Your task to perform on an android device: Open calendar and show me the second week of next month Image 0: 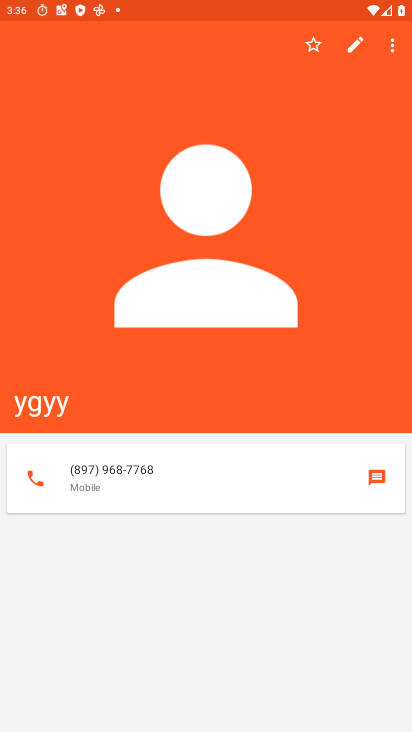
Step 0: press home button
Your task to perform on an android device: Open calendar and show me the second week of next month Image 1: 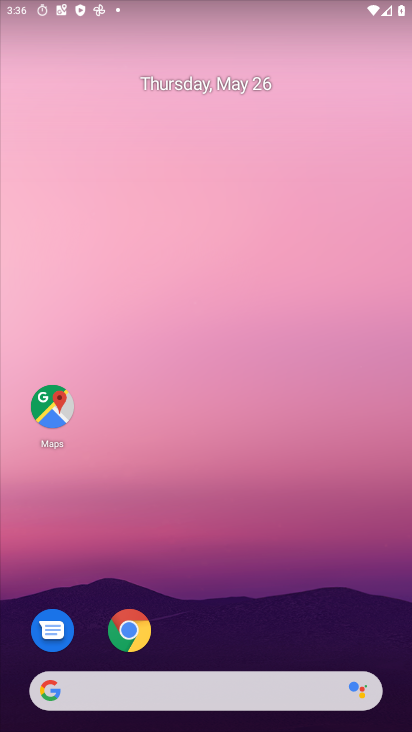
Step 1: drag from (173, 632) to (133, 31)
Your task to perform on an android device: Open calendar and show me the second week of next month Image 2: 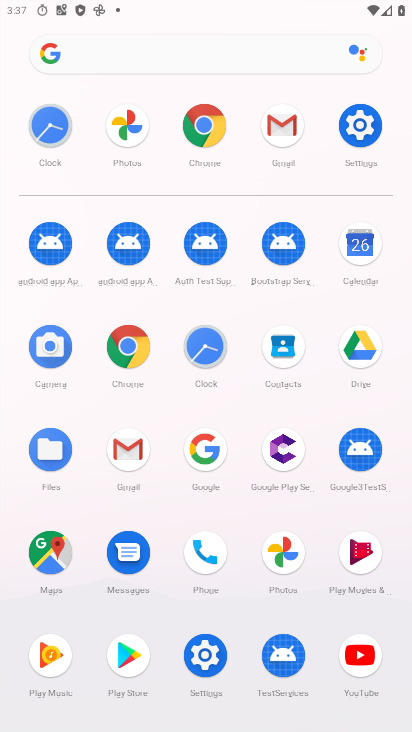
Step 2: click (373, 239)
Your task to perform on an android device: Open calendar and show me the second week of next month Image 3: 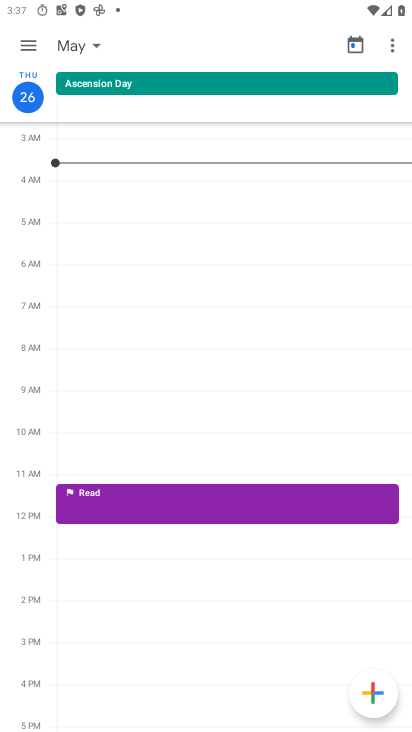
Step 3: click (26, 38)
Your task to perform on an android device: Open calendar and show me the second week of next month Image 4: 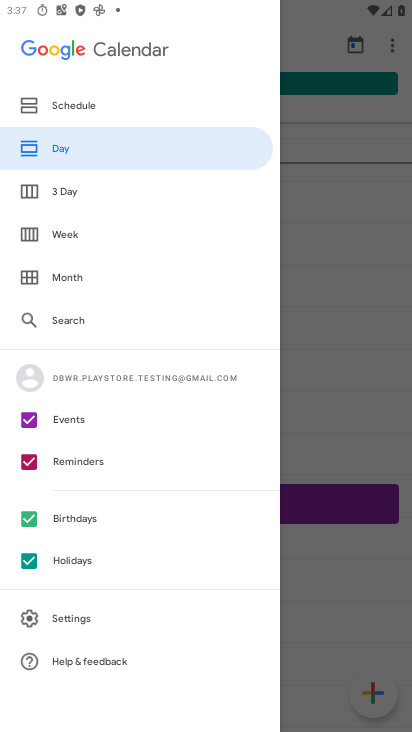
Step 4: click (75, 231)
Your task to perform on an android device: Open calendar and show me the second week of next month Image 5: 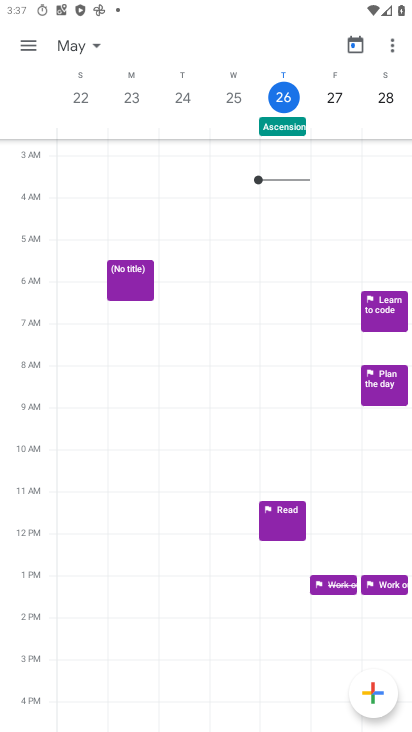
Step 5: click (88, 32)
Your task to perform on an android device: Open calendar and show me the second week of next month Image 6: 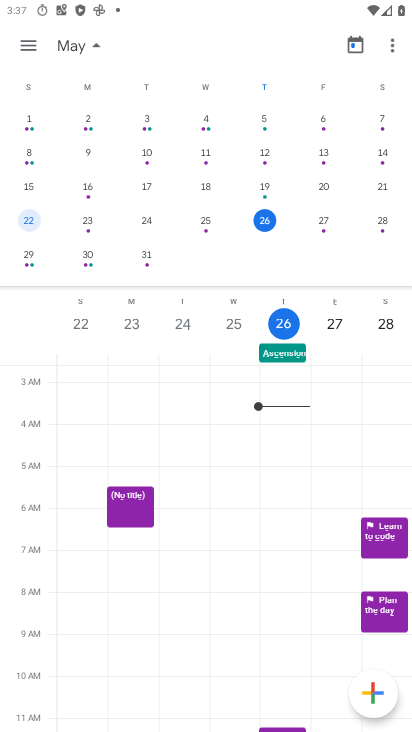
Step 6: drag from (397, 180) to (116, 192)
Your task to perform on an android device: Open calendar and show me the second week of next month Image 7: 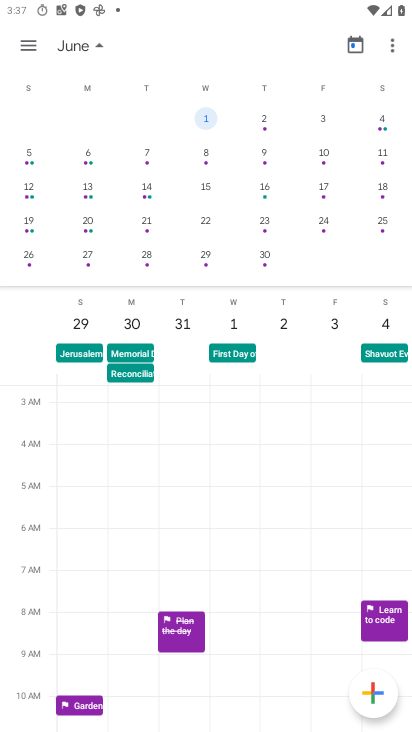
Step 7: click (326, 144)
Your task to perform on an android device: Open calendar and show me the second week of next month Image 8: 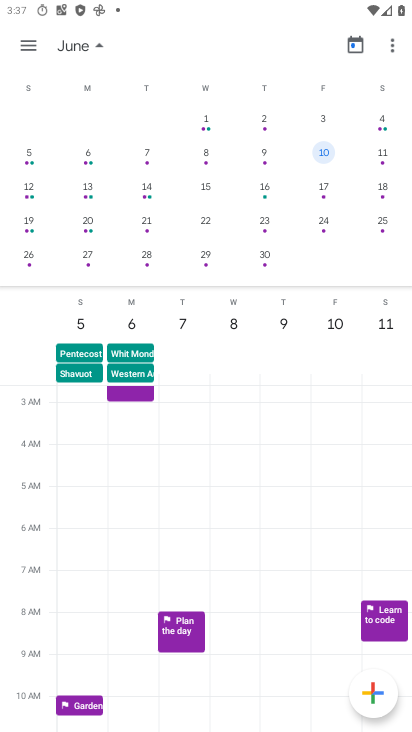
Step 8: task complete